Your task to perform on an android device: Go to calendar. Show me events next week Image 0: 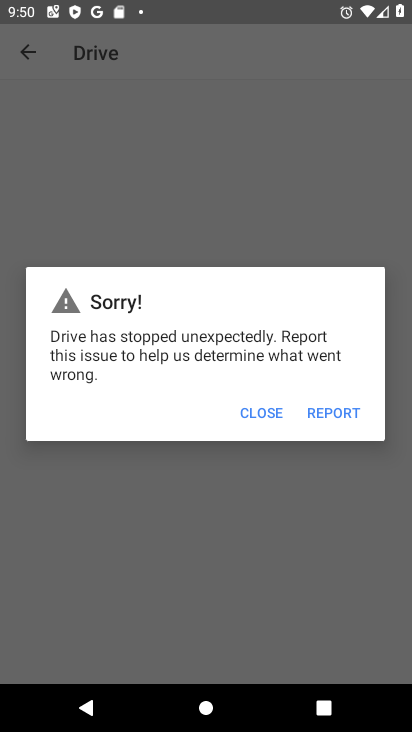
Step 0: press home button
Your task to perform on an android device: Go to calendar. Show me events next week Image 1: 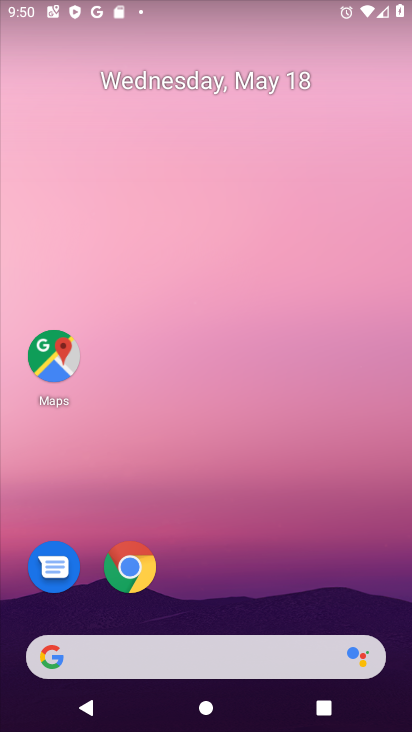
Step 1: drag from (237, 623) to (224, 277)
Your task to perform on an android device: Go to calendar. Show me events next week Image 2: 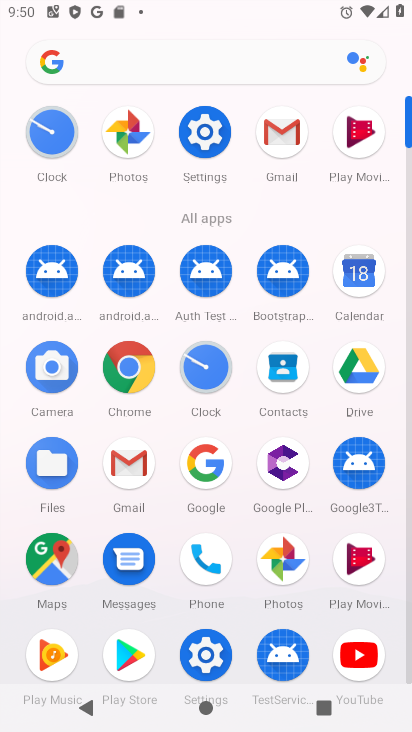
Step 2: click (356, 273)
Your task to perform on an android device: Go to calendar. Show me events next week Image 3: 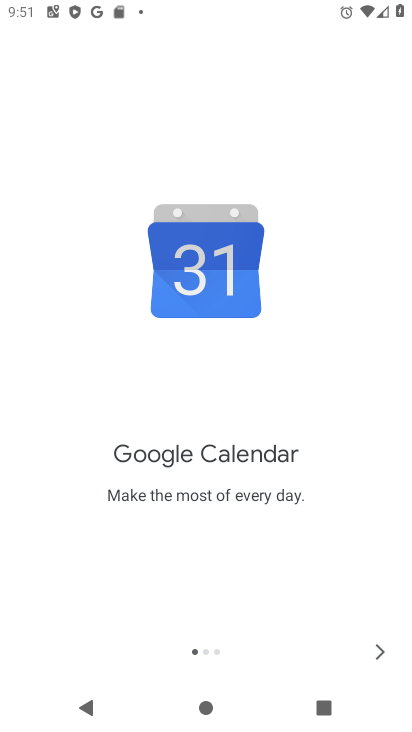
Step 3: click (379, 646)
Your task to perform on an android device: Go to calendar. Show me events next week Image 4: 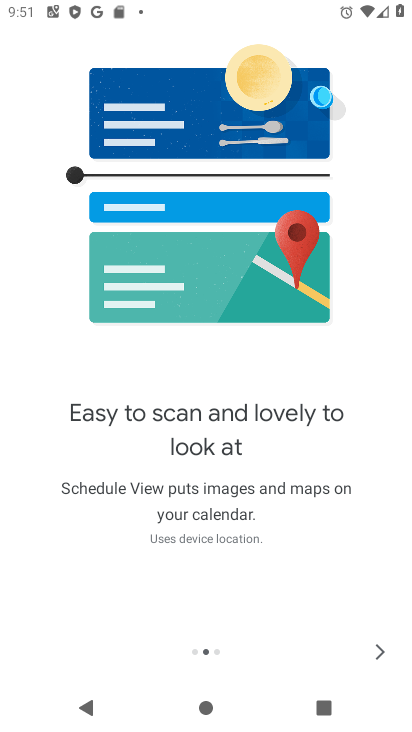
Step 4: click (378, 651)
Your task to perform on an android device: Go to calendar. Show me events next week Image 5: 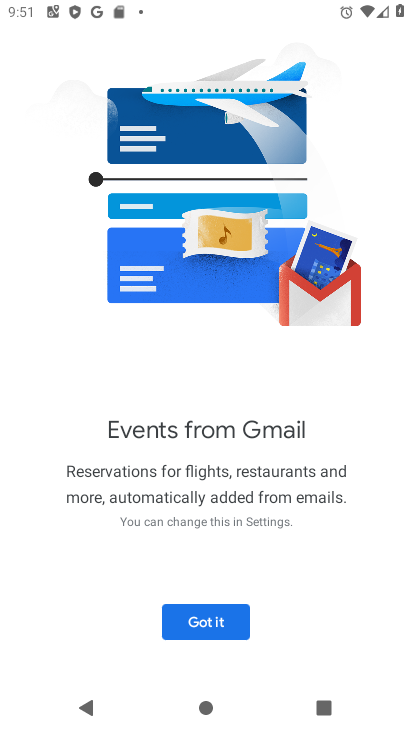
Step 5: click (206, 627)
Your task to perform on an android device: Go to calendar. Show me events next week Image 6: 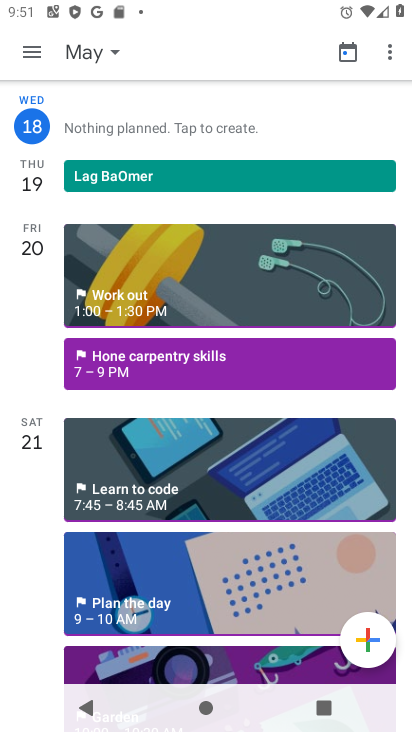
Step 6: click (27, 53)
Your task to perform on an android device: Go to calendar. Show me events next week Image 7: 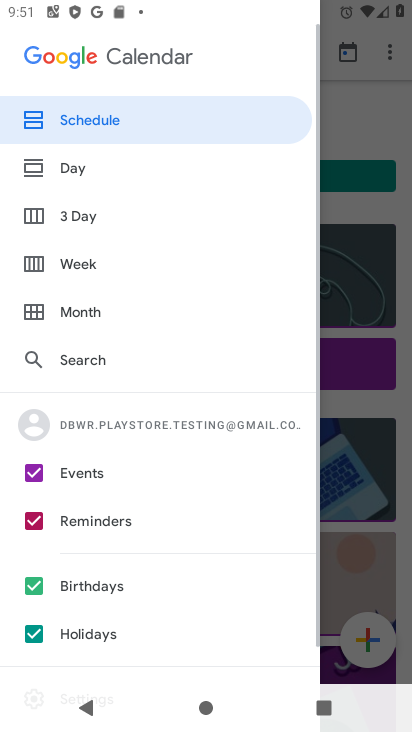
Step 7: click (66, 264)
Your task to perform on an android device: Go to calendar. Show me events next week Image 8: 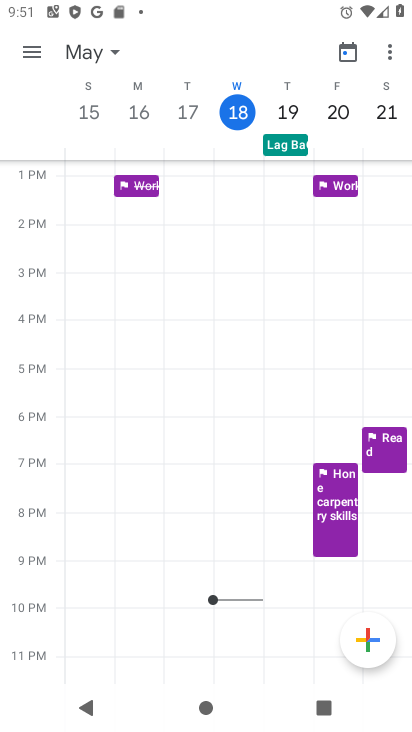
Step 8: task complete